Your task to perform on an android device: Do I have any events tomorrow? Image 0: 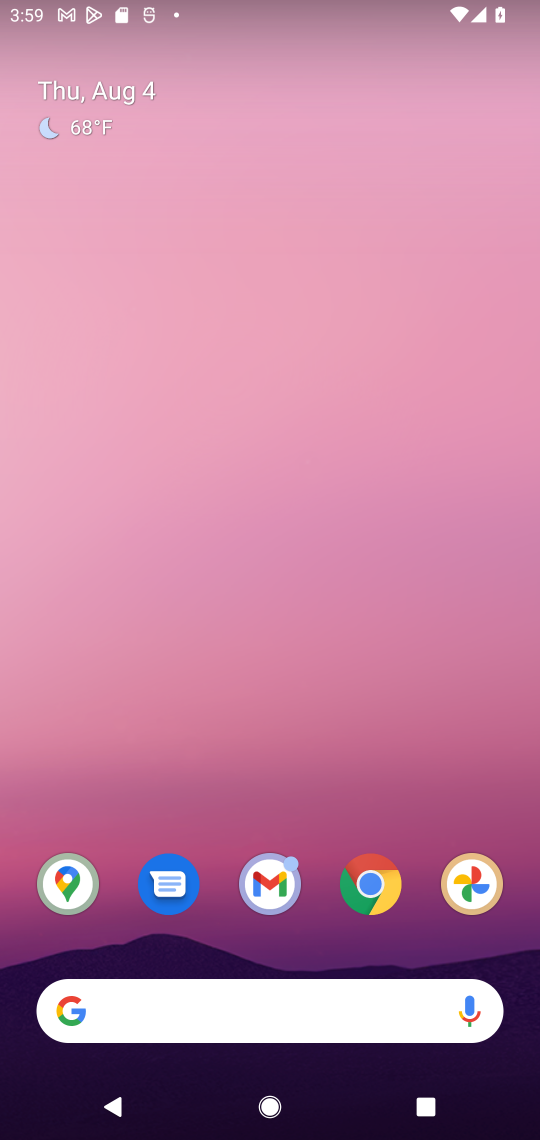
Step 0: drag from (325, 969) to (325, 225)
Your task to perform on an android device: Do I have any events tomorrow? Image 1: 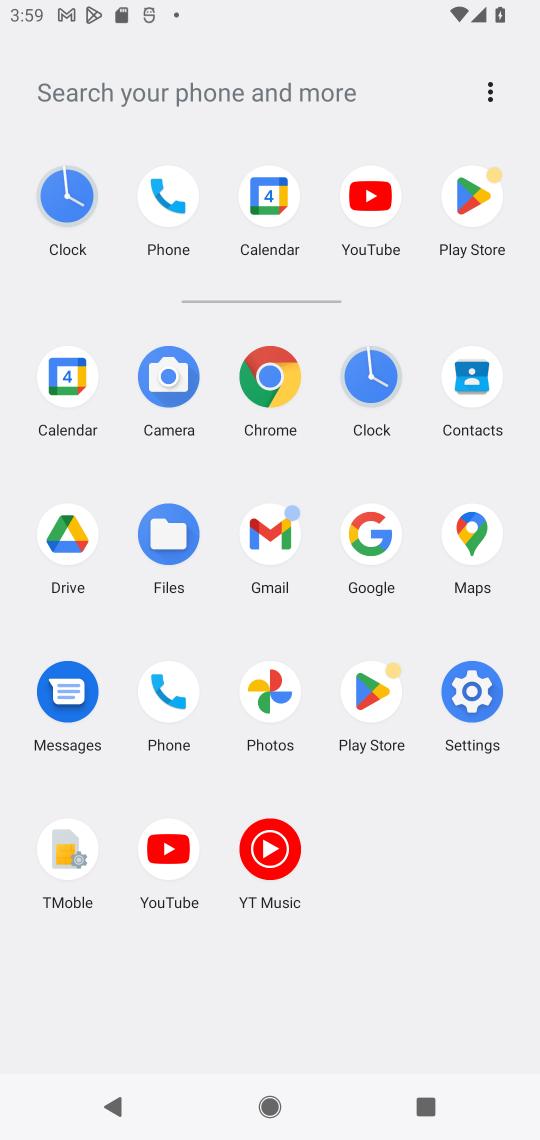
Step 1: click (465, 705)
Your task to perform on an android device: Do I have any events tomorrow? Image 2: 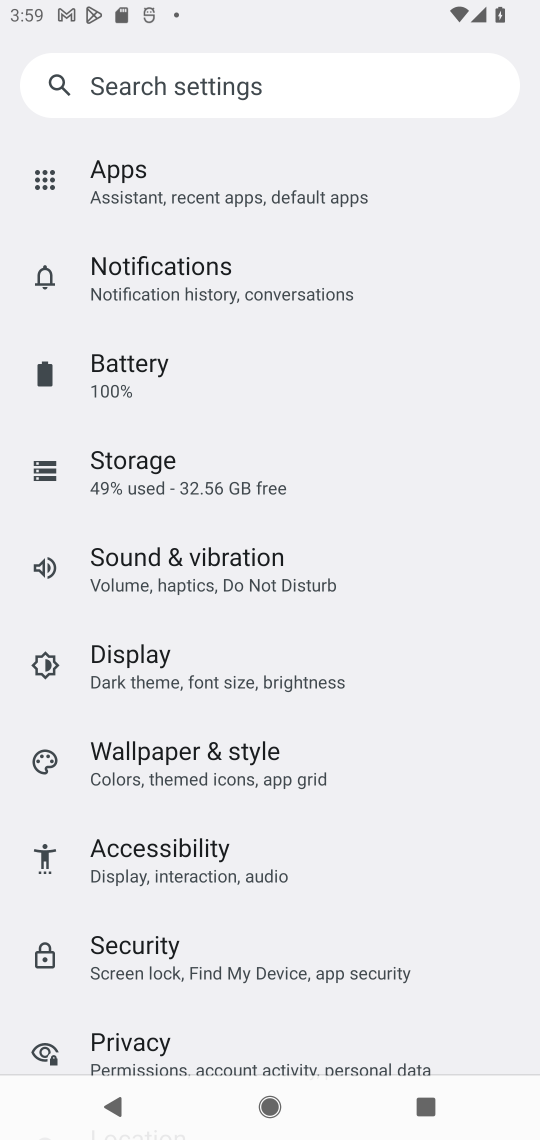
Step 2: task complete